Your task to perform on an android device: toggle notifications settings in the gmail app Image 0: 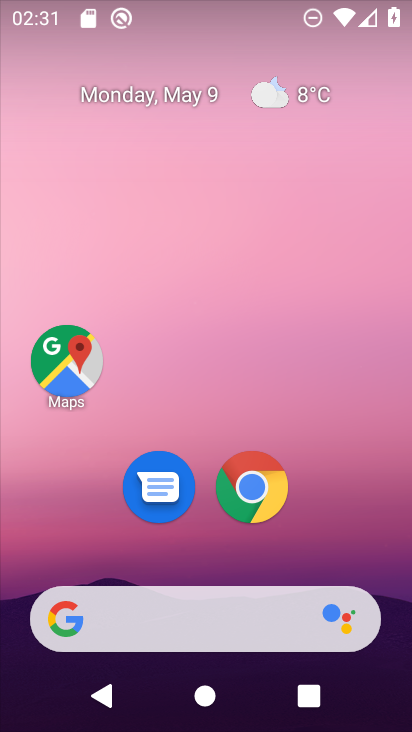
Step 0: drag from (349, 594) to (302, 43)
Your task to perform on an android device: toggle notifications settings in the gmail app Image 1: 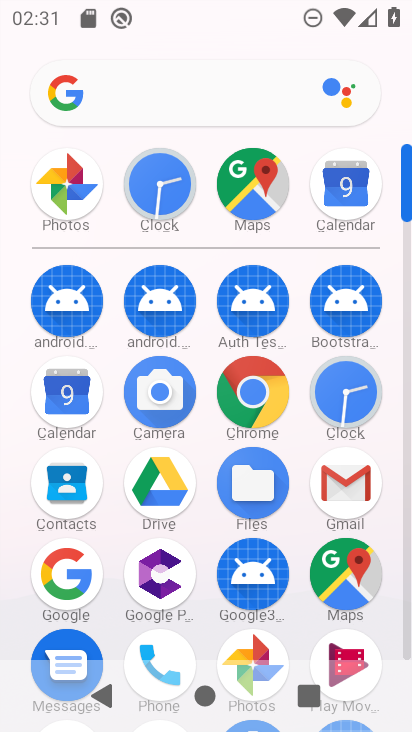
Step 1: click (348, 494)
Your task to perform on an android device: toggle notifications settings in the gmail app Image 2: 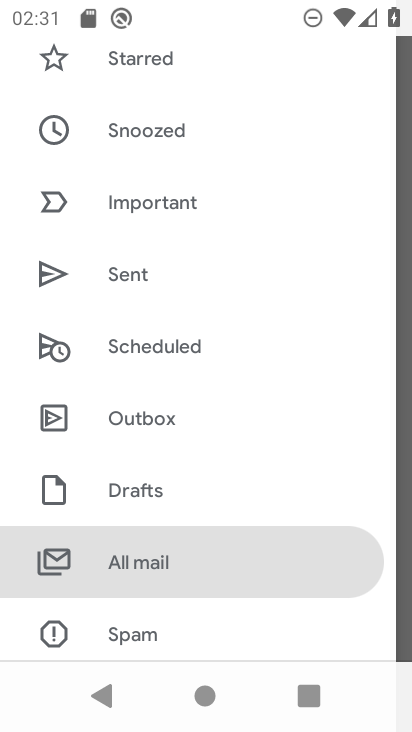
Step 2: drag from (231, 578) to (232, 147)
Your task to perform on an android device: toggle notifications settings in the gmail app Image 3: 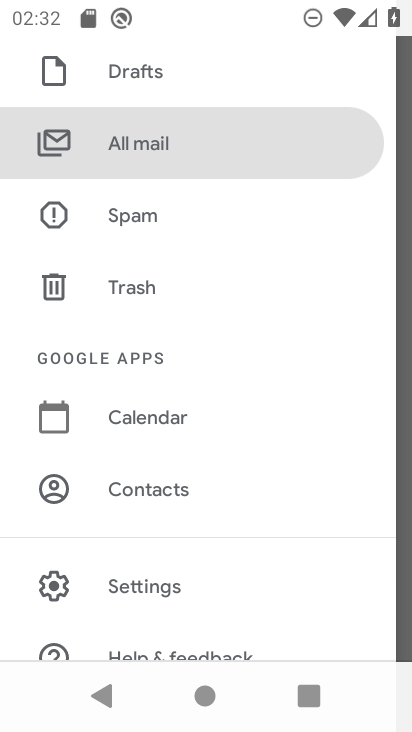
Step 3: click (149, 588)
Your task to perform on an android device: toggle notifications settings in the gmail app Image 4: 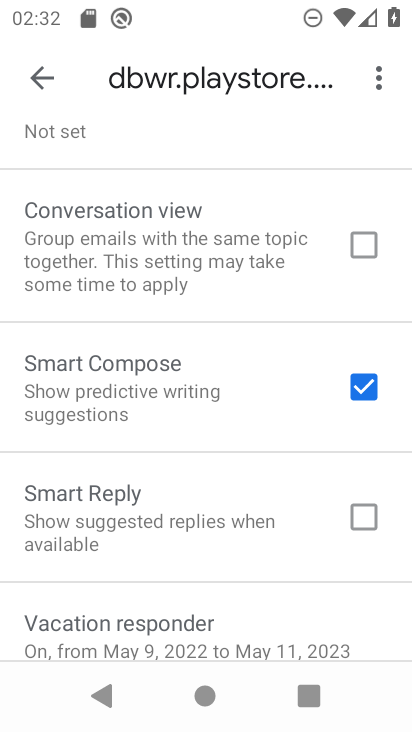
Step 4: click (156, 611)
Your task to perform on an android device: toggle notifications settings in the gmail app Image 5: 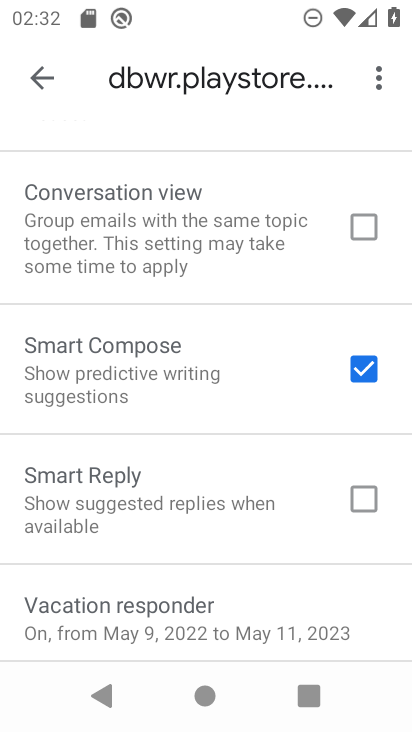
Step 5: drag from (141, 374) to (138, 630)
Your task to perform on an android device: toggle notifications settings in the gmail app Image 6: 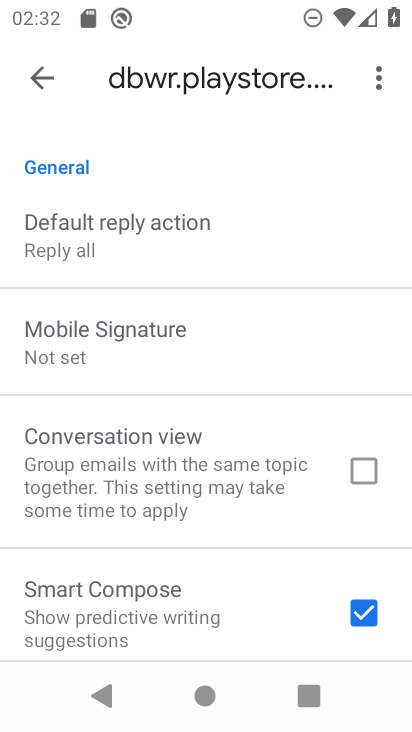
Step 6: drag from (102, 192) to (109, 569)
Your task to perform on an android device: toggle notifications settings in the gmail app Image 7: 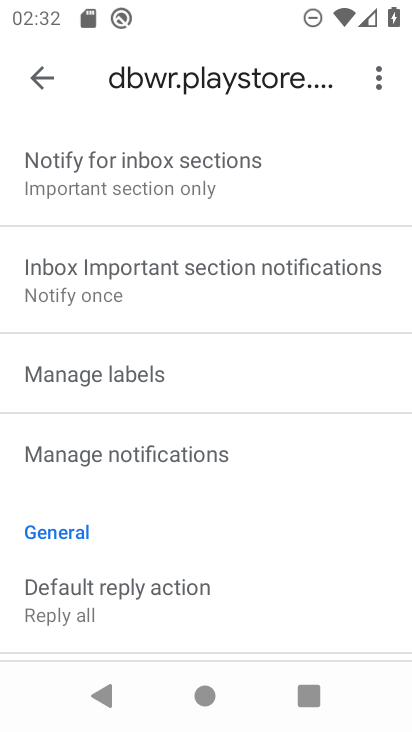
Step 7: drag from (72, 226) to (99, 572)
Your task to perform on an android device: toggle notifications settings in the gmail app Image 8: 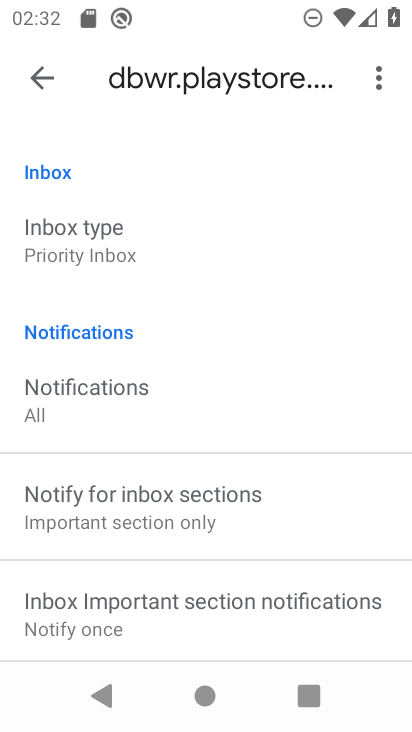
Step 8: click (84, 409)
Your task to perform on an android device: toggle notifications settings in the gmail app Image 9: 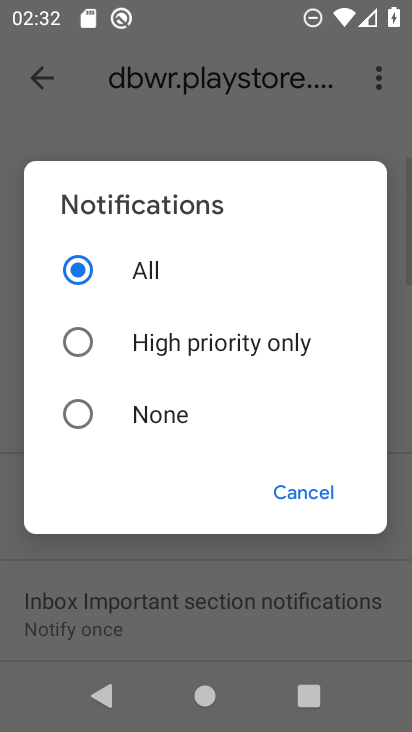
Step 9: click (138, 416)
Your task to perform on an android device: toggle notifications settings in the gmail app Image 10: 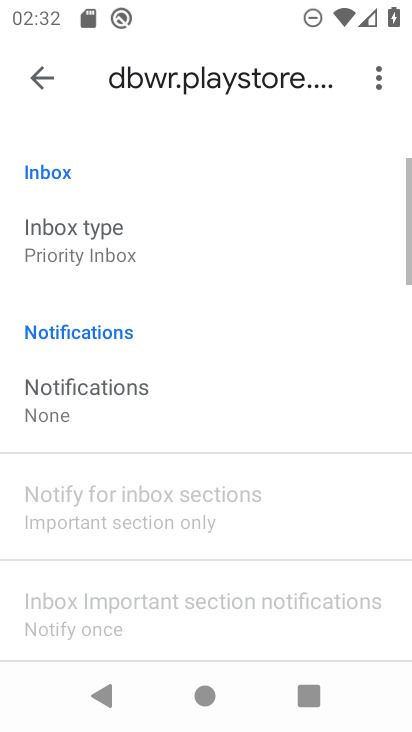
Step 10: drag from (160, 538) to (157, 285)
Your task to perform on an android device: toggle notifications settings in the gmail app Image 11: 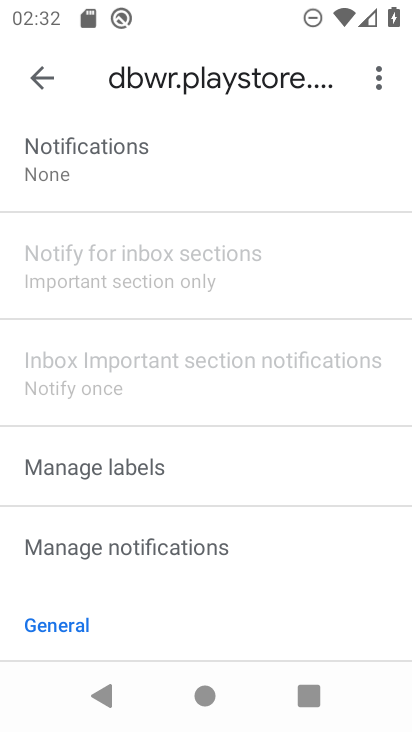
Step 11: click (144, 544)
Your task to perform on an android device: toggle notifications settings in the gmail app Image 12: 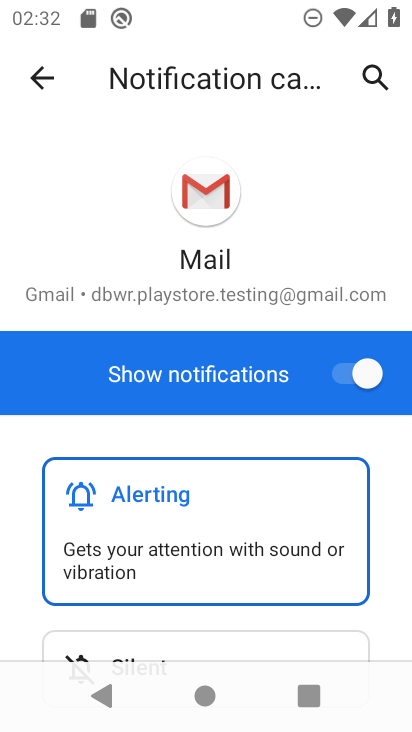
Step 12: click (361, 371)
Your task to perform on an android device: toggle notifications settings in the gmail app Image 13: 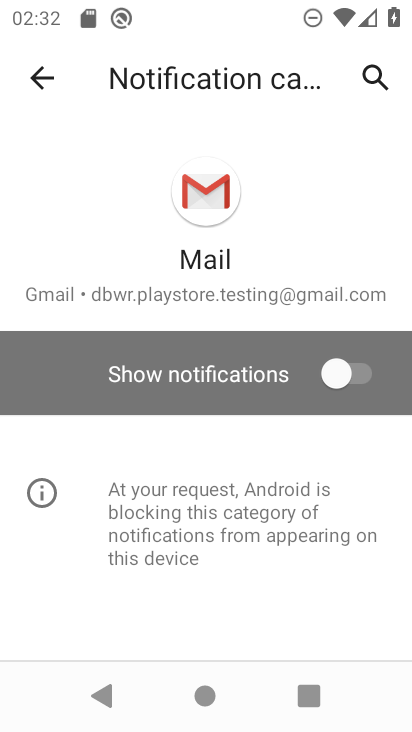
Step 13: task complete